Your task to perform on an android device: Open Google Chrome Image 0: 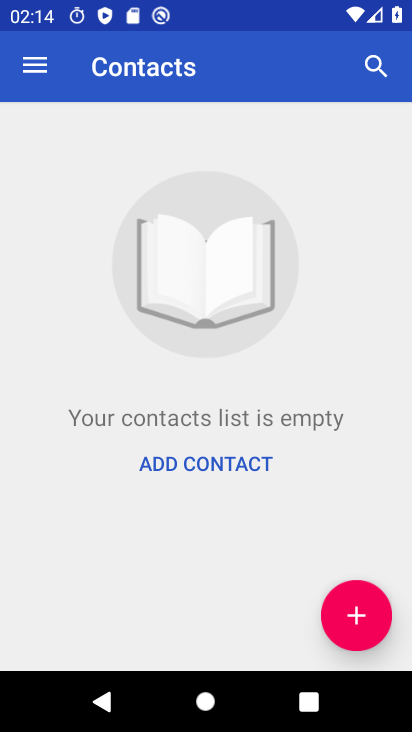
Step 0: press home button
Your task to perform on an android device: Open Google Chrome Image 1: 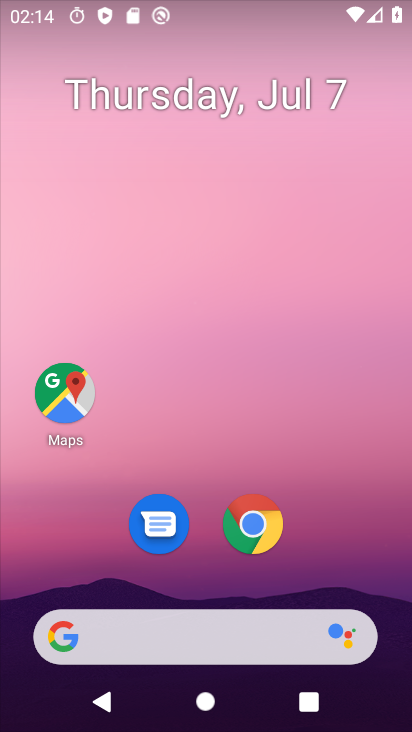
Step 1: click (251, 519)
Your task to perform on an android device: Open Google Chrome Image 2: 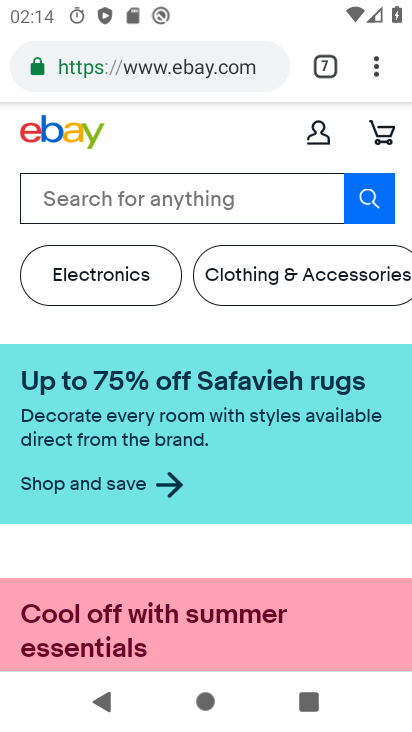
Step 2: task complete